Your task to perform on an android device: open a bookmark in the chrome app Image 0: 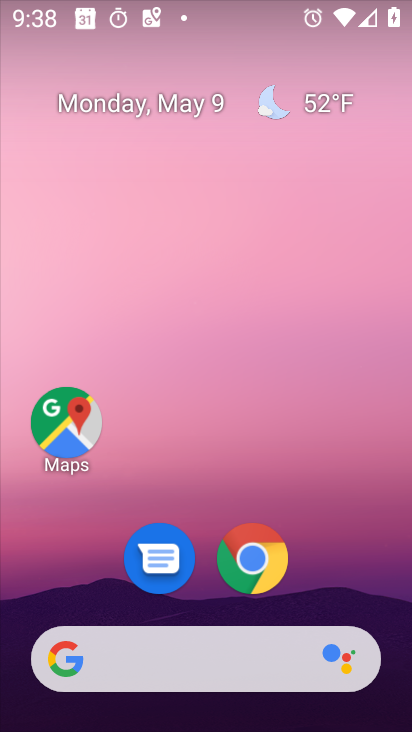
Step 0: click (251, 561)
Your task to perform on an android device: open a bookmark in the chrome app Image 1: 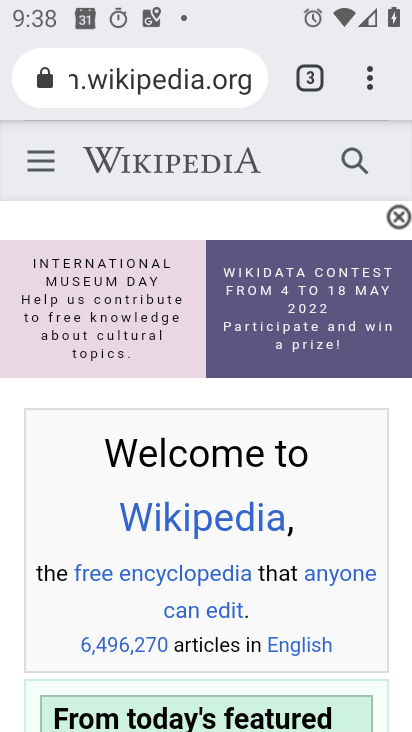
Step 1: drag from (377, 74) to (203, 287)
Your task to perform on an android device: open a bookmark in the chrome app Image 2: 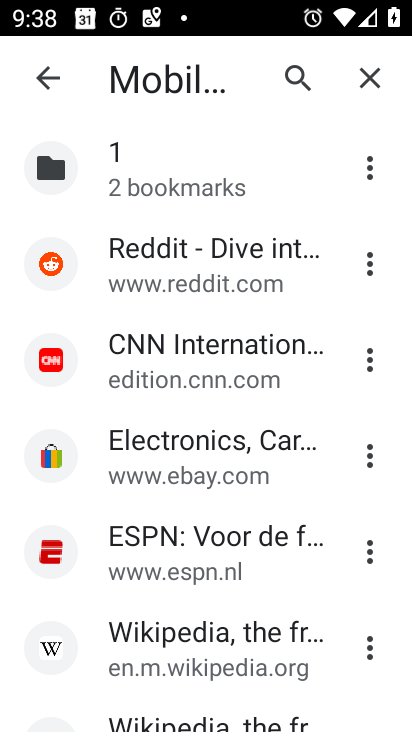
Step 2: click (185, 283)
Your task to perform on an android device: open a bookmark in the chrome app Image 3: 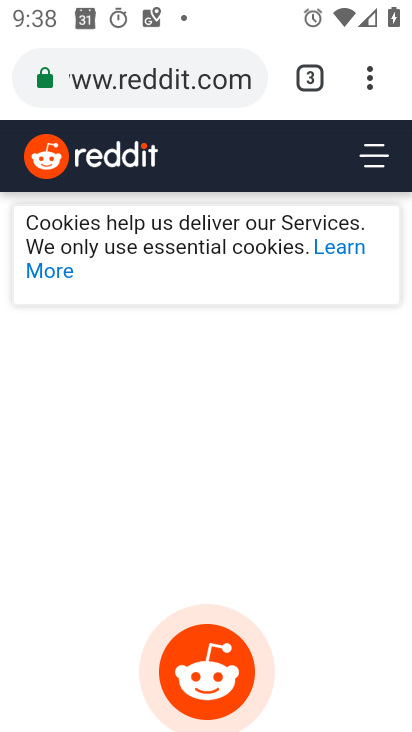
Step 3: task complete